Your task to perform on an android device: Search for pizza restaurants on Maps Image 0: 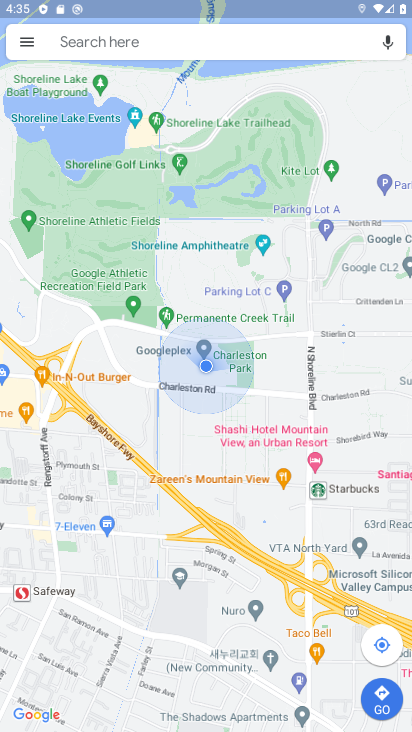
Step 0: click (191, 46)
Your task to perform on an android device: Search for pizza restaurants on Maps Image 1: 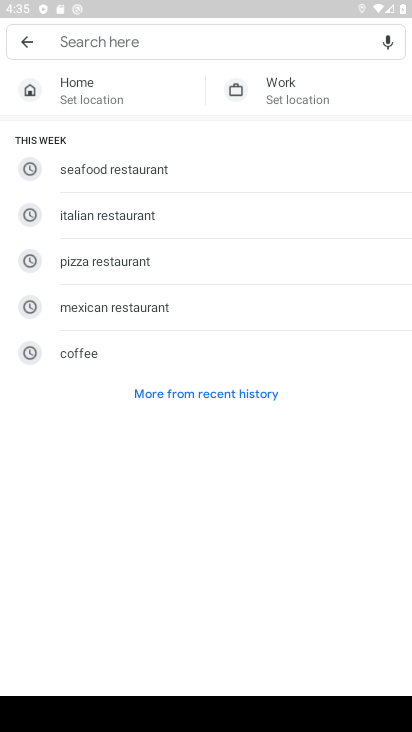
Step 1: type "pizza restaurant"
Your task to perform on an android device: Search for pizza restaurants on Maps Image 2: 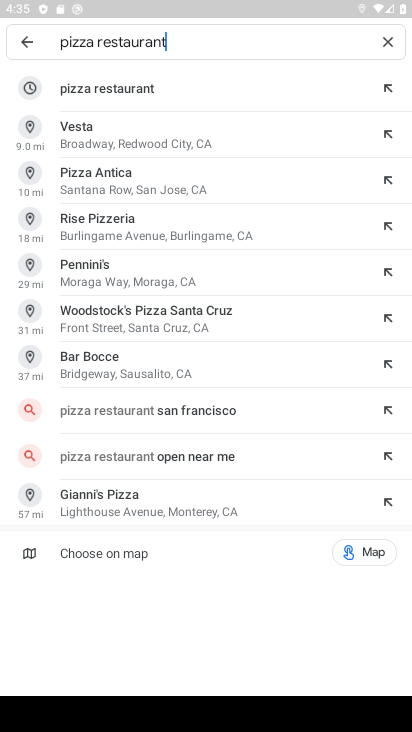
Step 2: click (177, 83)
Your task to perform on an android device: Search for pizza restaurants on Maps Image 3: 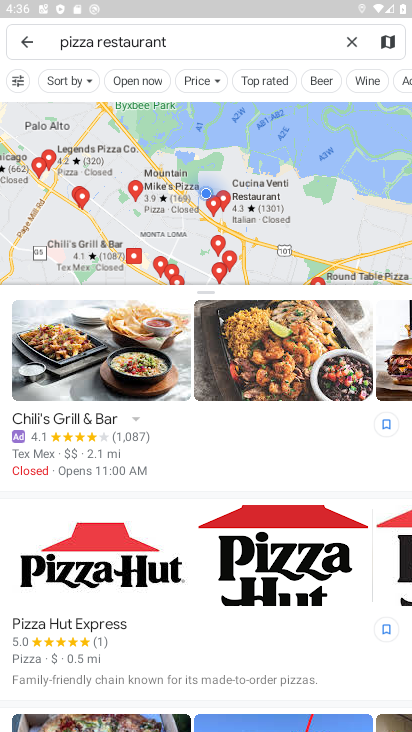
Step 3: task complete